Your task to perform on an android device: check battery use Image 0: 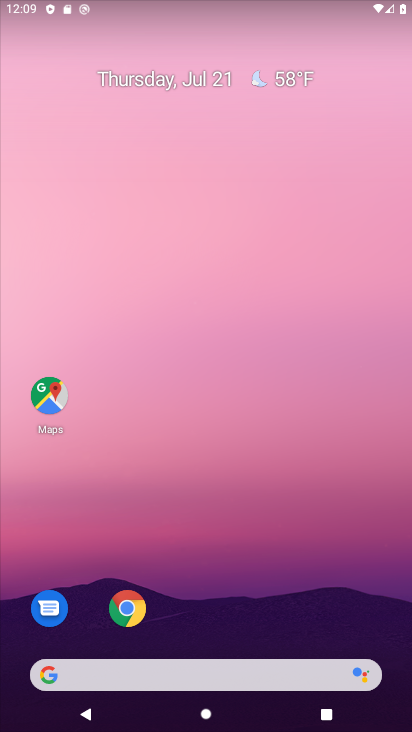
Step 0: drag from (207, 633) to (236, 68)
Your task to perform on an android device: check battery use Image 1: 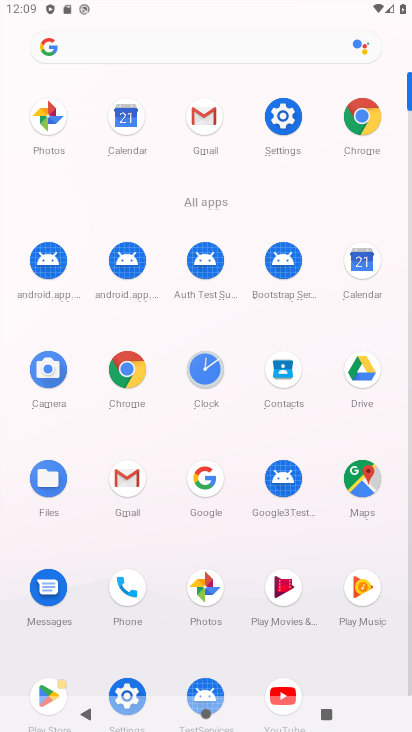
Step 1: click (275, 116)
Your task to perform on an android device: check battery use Image 2: 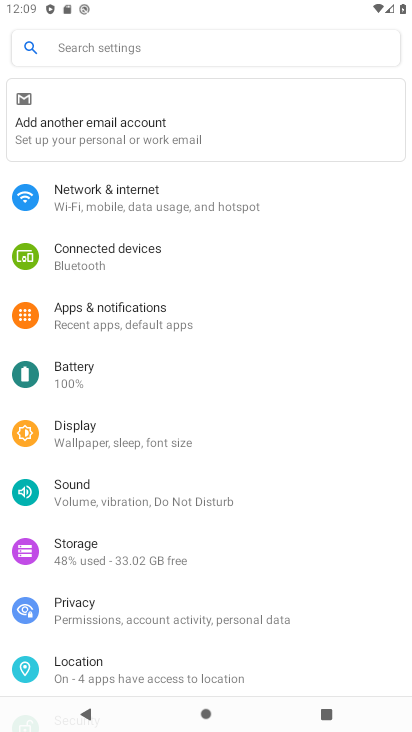
Step 2: click (93, 367)
Your task to perform on an android device: check battery use Image 3: 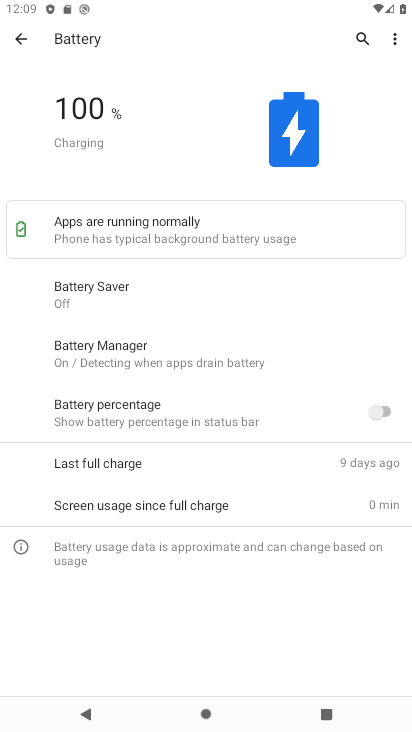
Step 3: click (397, 37)
Your task to perform on an android device: check battery use Image 4: 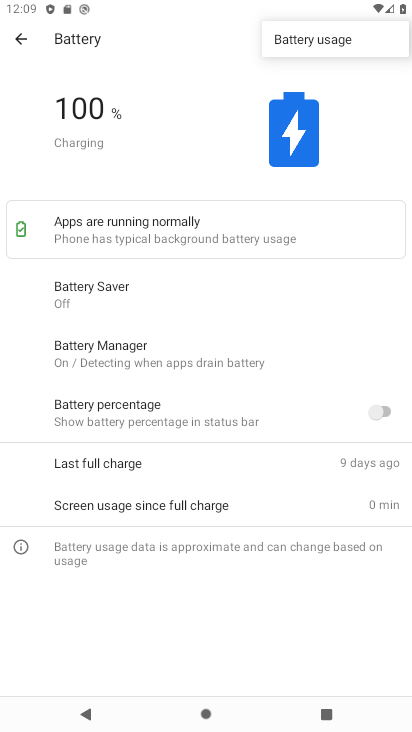
Step 4: click (308, 42)
Your task to perform on an android device: check battery use Image 5: 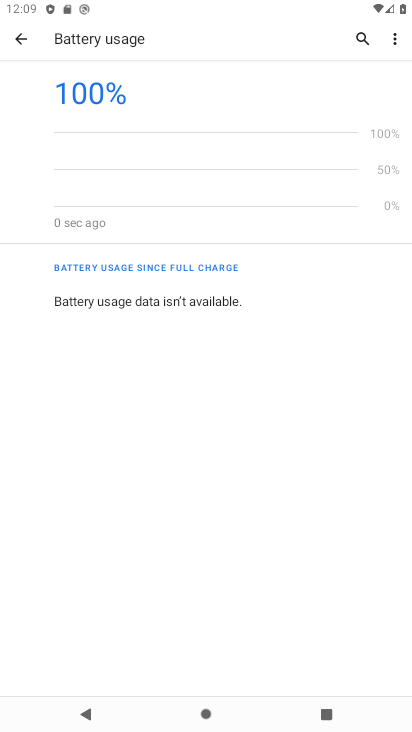
Step 5: task complete